Your task to perform on an android device: Open battery settings Image 0: 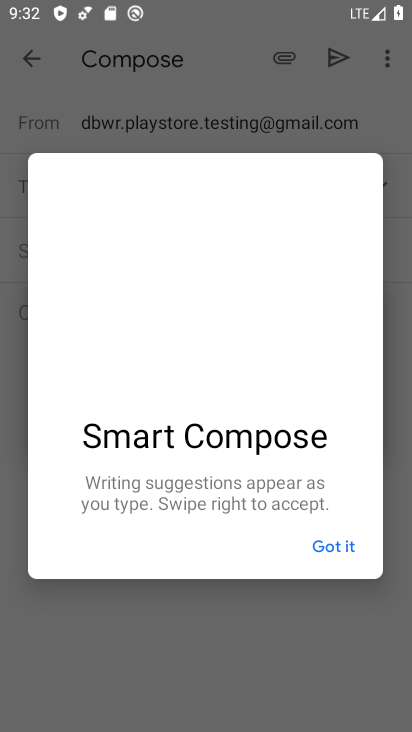
Step 0: press home button
Your task to perform on an android device: Open battery settings Image 1: 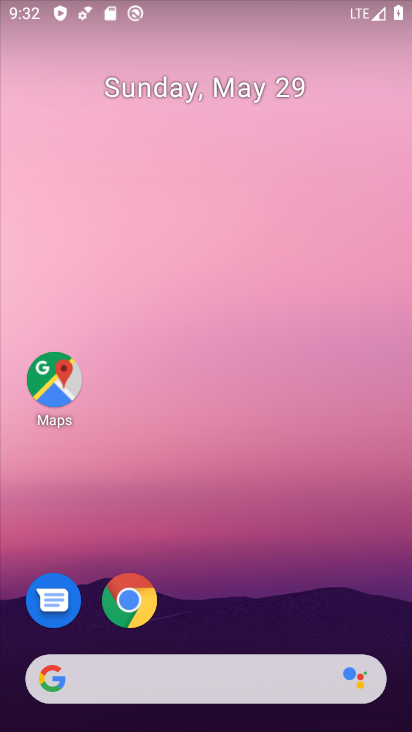
Step 1: drag from (219, 614) to (228, 51)
Your task to perform on an android device: Open battery settings Image 2: 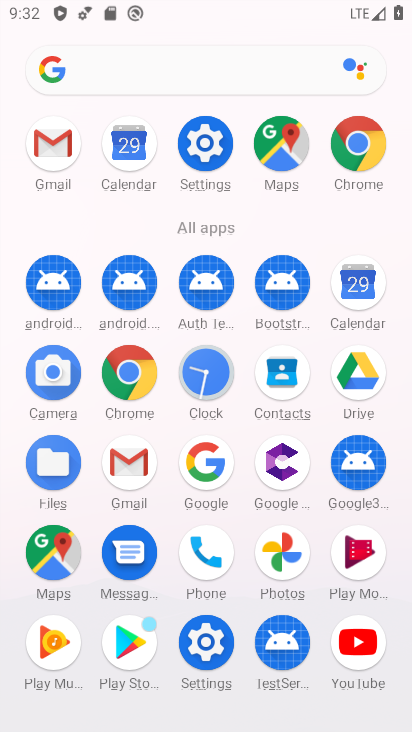
Step 2: click (198, 133)
Your task to perform on an android device: Open battery settings Image 3: 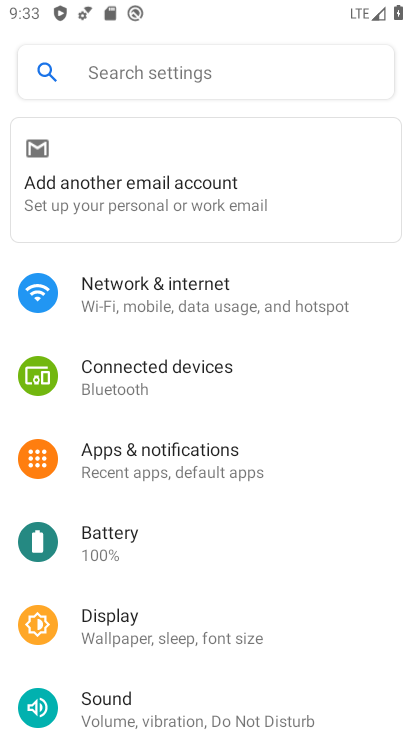
Step 3: click (87, 534)
Your task to perform on an android device: Open battery settings Image 4: 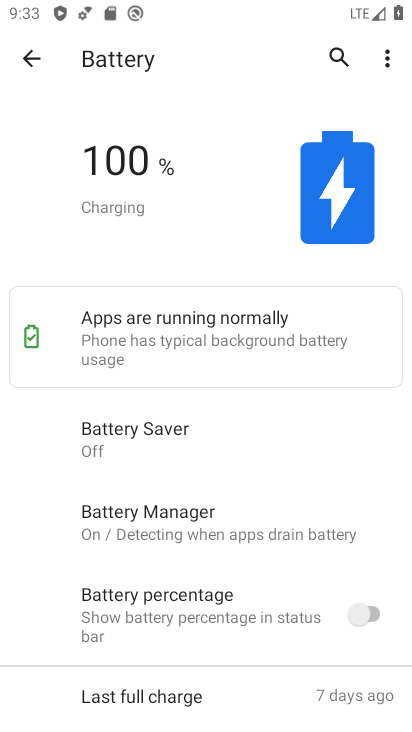
Step 4: task complete